Your task to perform on an android device: toggle translation in the chrome app Image 0: 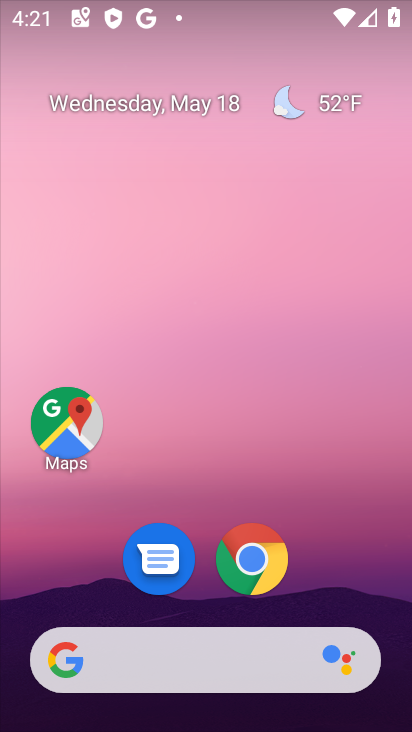
Step 0: click (254, 562)
Your task to perform on an android device: toggle translation in the chrome app Image 1: 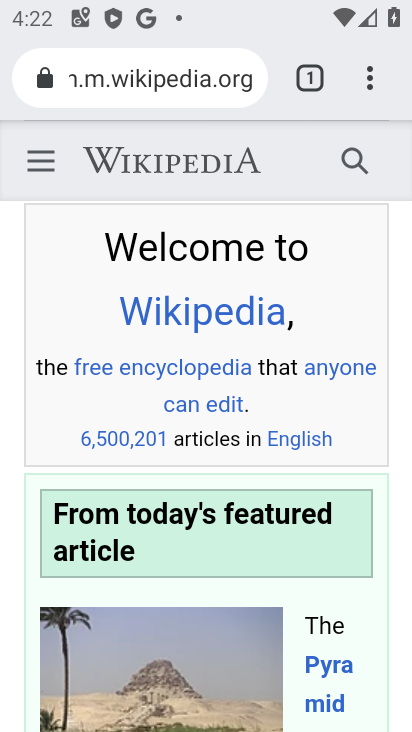
Step 1: click (358, 82)
Your task to perform on an android device: toggle translation in the chrome app Image 2: 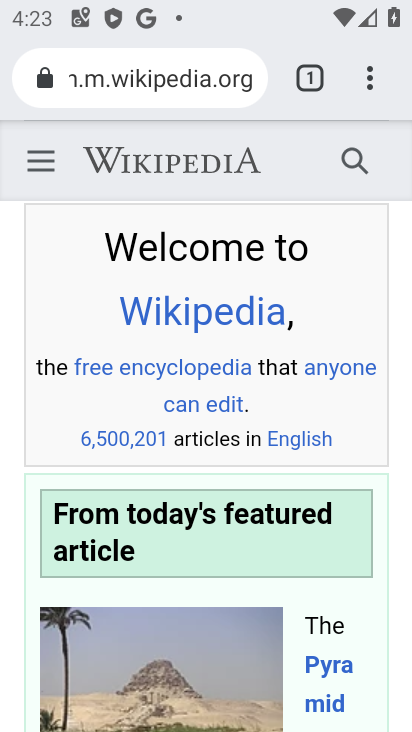
Step 2: drag from (371, 83) to (98, 604)
Your task to perform on an android device: toggle translation in the chrome app Image 3: 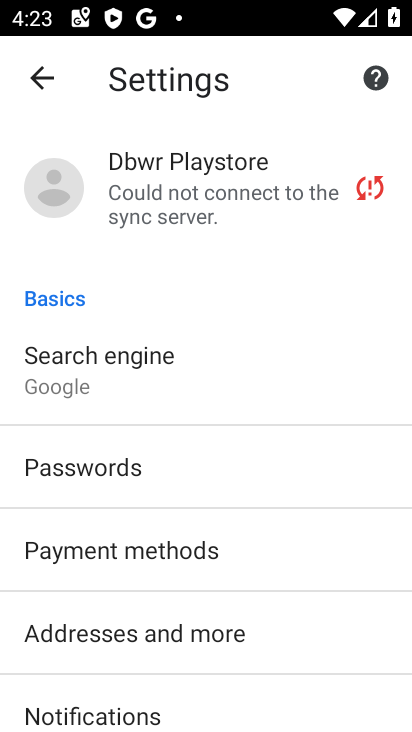
Step 3: drag from (134, 610) to (228, 149)
Your task to perform on an android device: toggle translation in the chrome app Image 4: 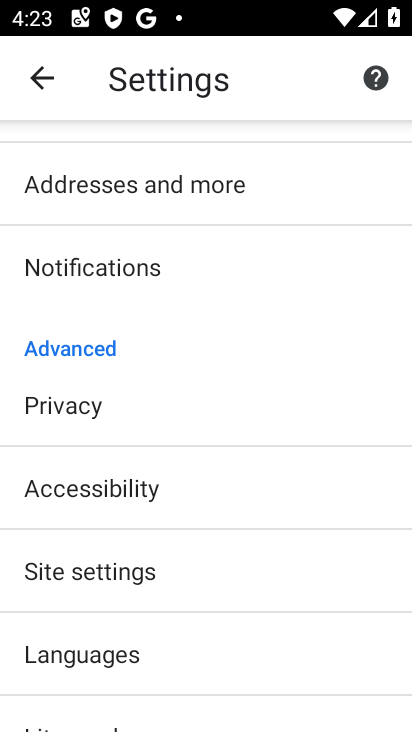
Step 4: click (84, 654)
Your task to perform on an android device: toggle translation in the chrome app Image 5: 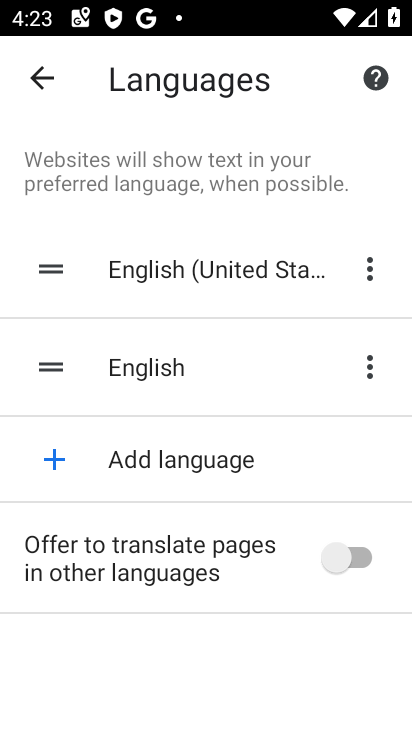
Step 5: click (350, 552)
Your task to perform on an android device: toggle translation in the chrome app Image 6: 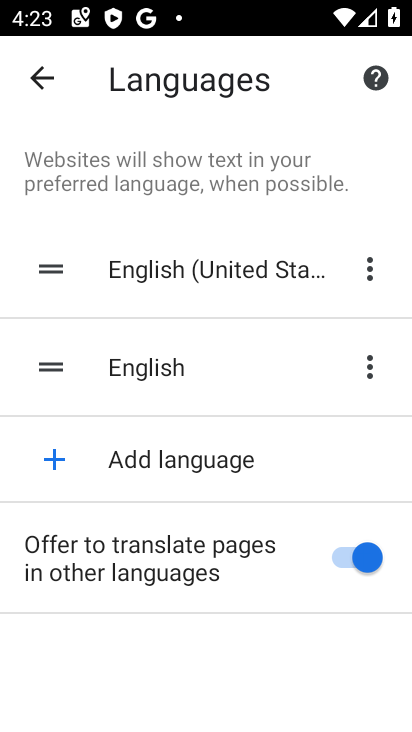
Step 6: task complete